Your task to perform on an android device: turn pop-ups on in chrome Image 0: 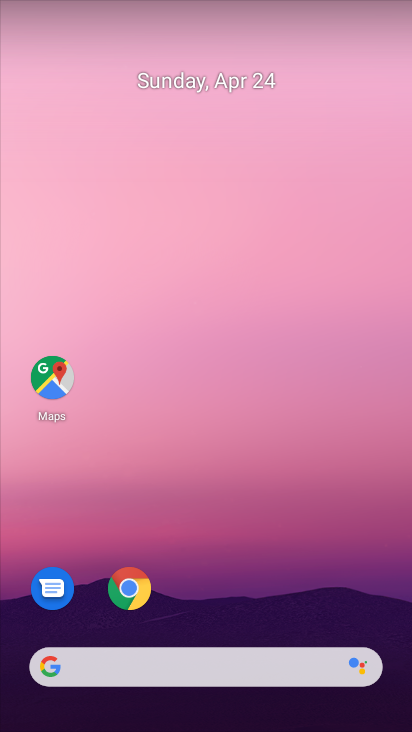
Step 0: click (134, 587)
Your task to perform on an android device: turn pop-ups on in chrome Image 1: 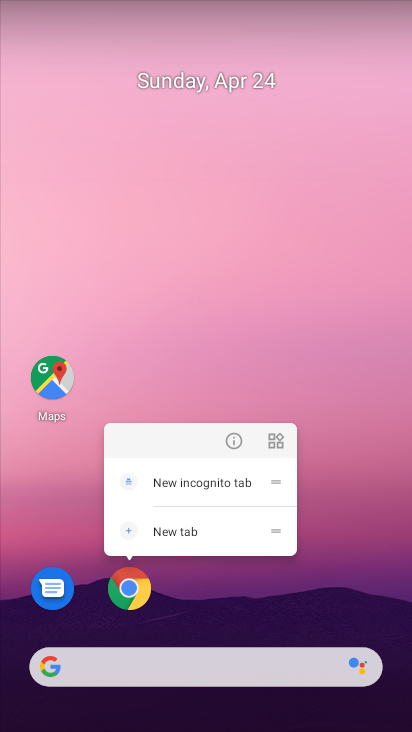
Step 1: click (131, 585)
Your task to perform on an android device: turn pop-ups on in chrome Image 2: 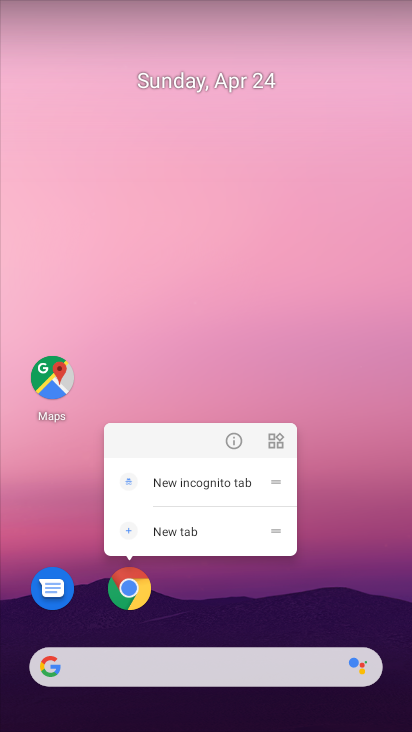
Step 2: click (126, 588)
Your task to perform on an android device: turn pop-ups on in chrome Image 3: 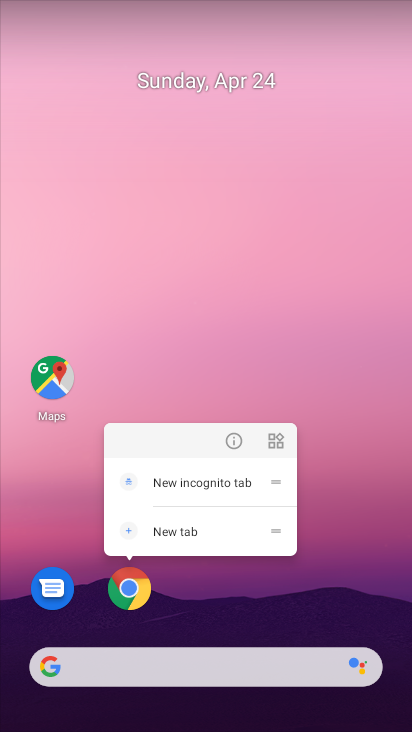
Step 3: click (131, 582)
Your task to perform on an android device: turn pop-ups on in chrome Image 4: 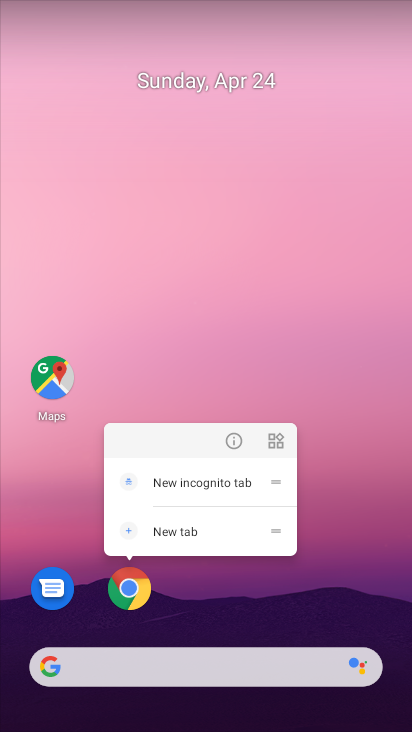
Step 4: click (133, 581)
Your task to perform on an android device: turn pop-ups on in chrome Image 5: 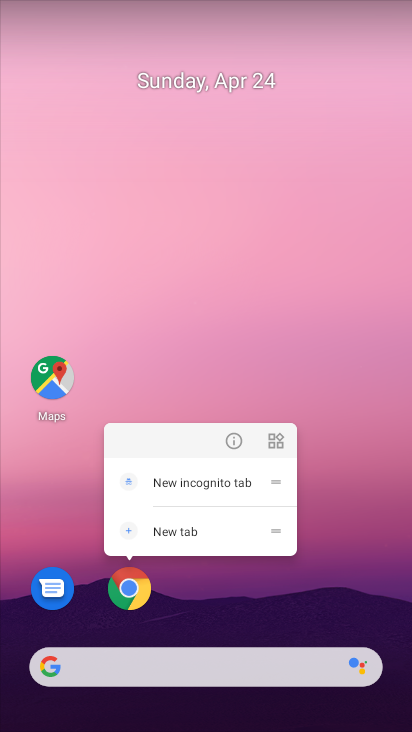
Step 5: click (135, 598)
Your task to perform on an android device: turn pop-ups on in chrome Image 6: 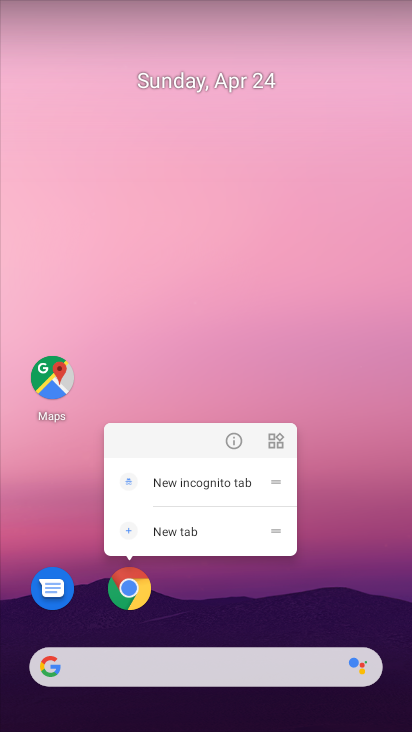
Step 6: click (137, 590)
Your task to perform on an android device: turn pop-ups on in chrome Image 7: 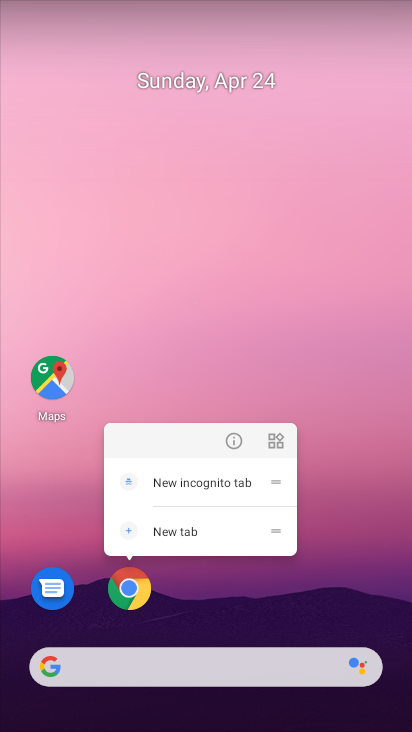
Step 7: click (138, 588)
Your task to perform on an android device: turn pop-ups on in chrome Image 8: 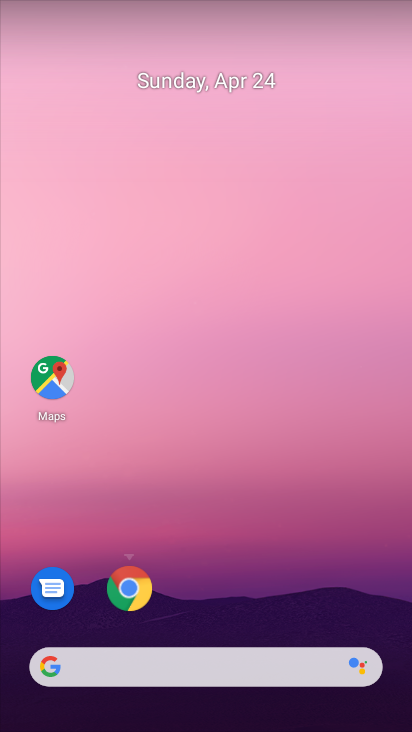
Step 8: click (137, 588)
Your task to perform on an android device: turn pop-ups on in chrome Image 9: 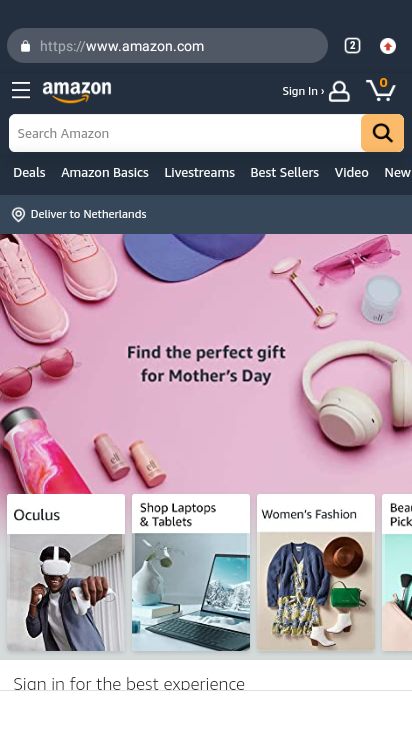
Step 9: click (387, 45)
Your task to perform on an android device: turn pop-ups on in chrome Image 10: 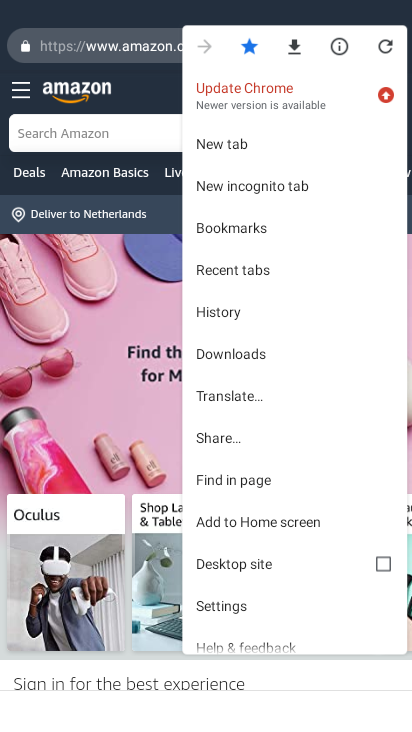
Step 10: click (245, 594)
Your task to perform on an android device: turn pop-ups on in chrome Image 11: 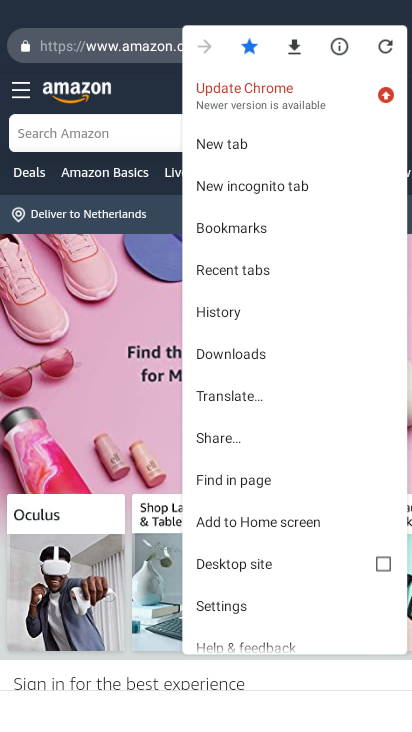
Step 11: click (245, 600)
Your task to perform on an android device: turn pop-ups on in chrome Image 12: 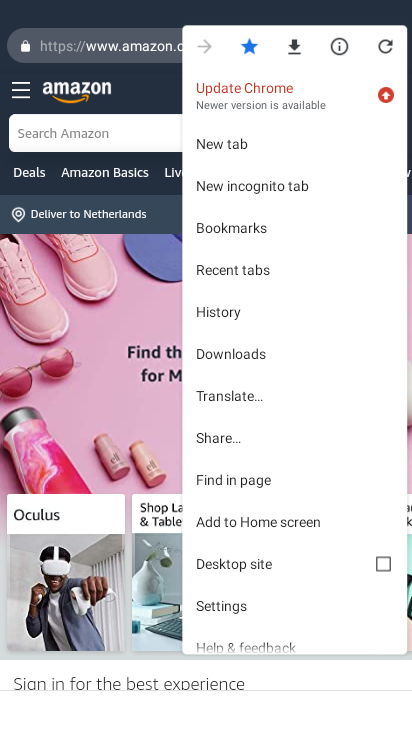
Step 12: click (223, 605)
Your task to perform on an android device: turn pop-ups on in chrome Image 13: 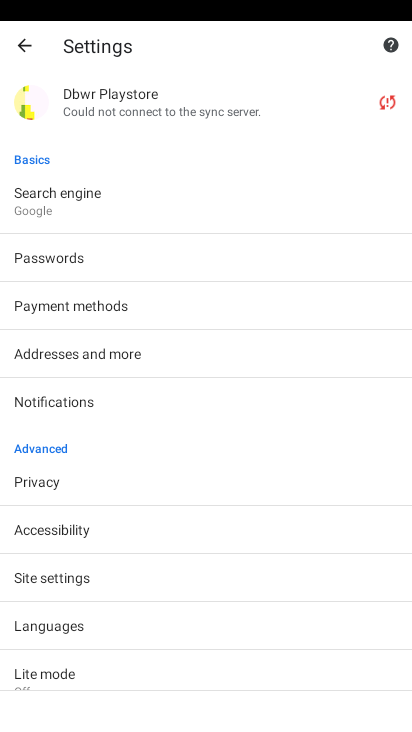
Step 13: click (89, 575)
Your task to perform on an android device: turn pop-ups on in chrome Image 14: 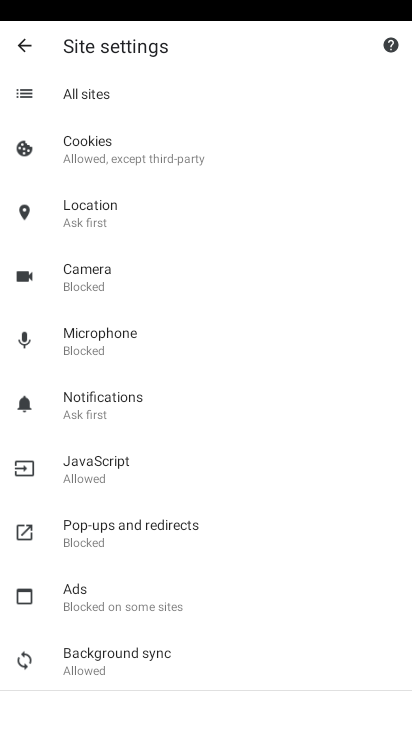
Step 14: click (162, 528)
Your task to perform on an android device: turn pop-ups on in chrome Image 15: 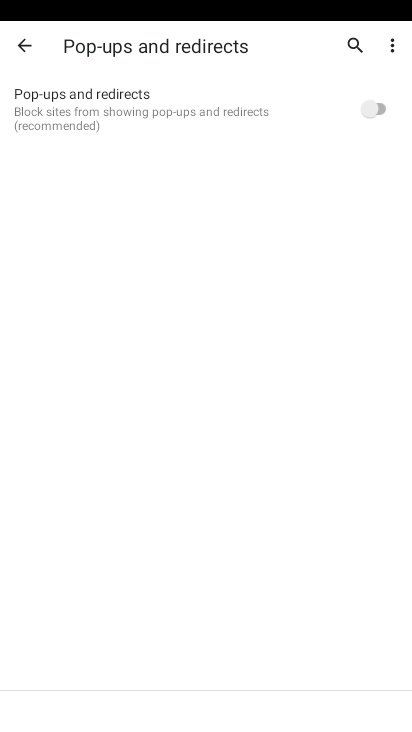
Step 15: click (383, 104)
Your task to perform on an android device: turn pop-ups on in chrome Image 16: 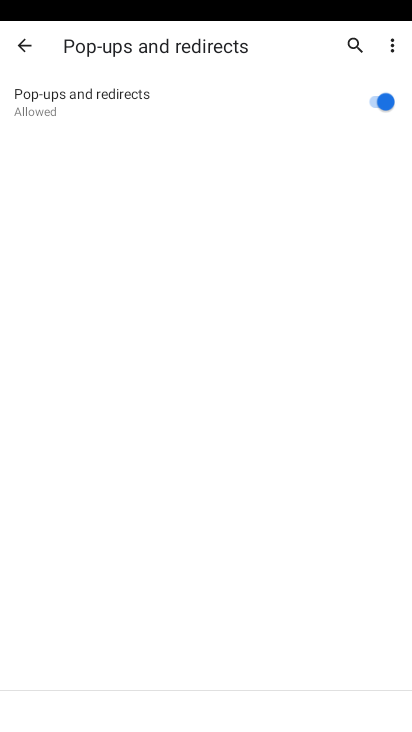
Step 16: task complete